Your task to perform on an android device: turn on translation in the chrome app Image 0: 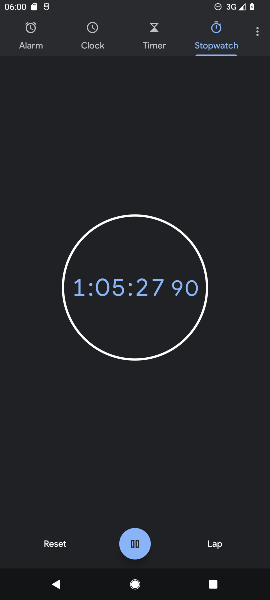
Step 0: press home button
Your task to perform on an android device: turn on translation in the chrome app Image 1: 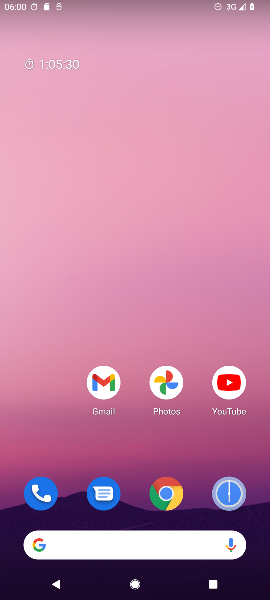
Step 1: drag from (63, 434) to (70, 120)
Your task to perform on an android device: turn on translation in the chrome app Image 2: 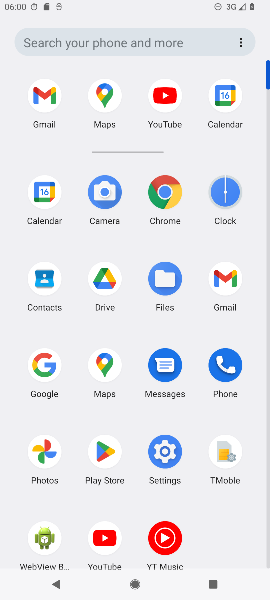
Step 2: click (171, 190)
Your task to perform on an android device: turn on translation in the chrome app Image 3: 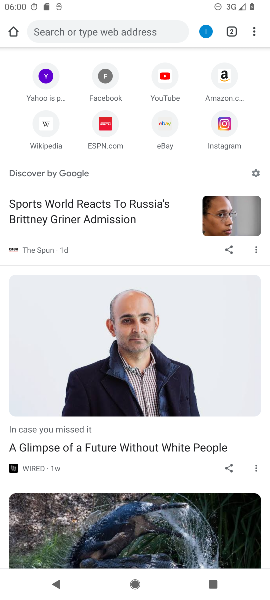
Step 3: click (254, 32)
Your task to perform on an android device: turn on translation in the chrome app Image 4: 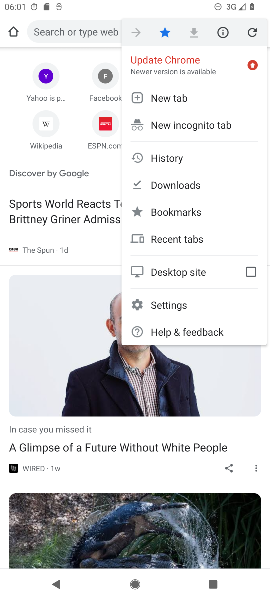
Step 4: click (178, 306)
Your task to perform on an android device: turn on translation in the chrome app Image 5: 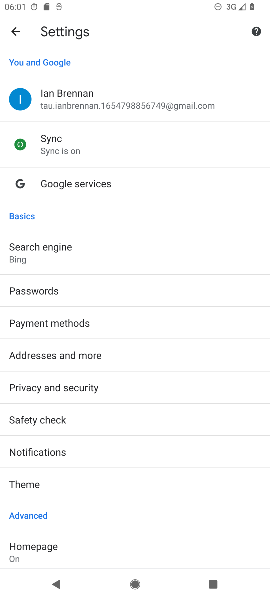
Step 5: drag from (187, 457) to (202, 383)
Your task to perform on an android device: turn on translation in the chrome app Image 6: 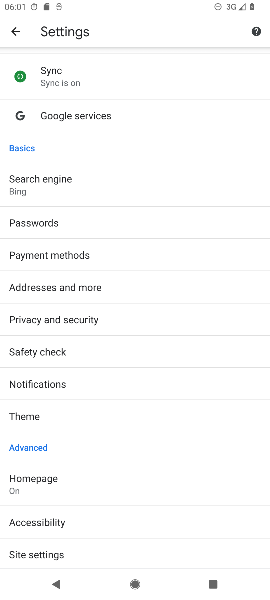
Step 6: drag from (192, 467) to (204, 389)
Your task to perform on an android device: turn on translation in the chrome app Image 7: 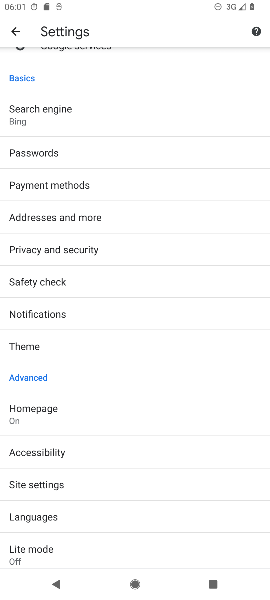
Step 7: drag from (181, 461) to (200, 360)
Your task to perform on an android device: turn on translation in the chrome app Image 8: 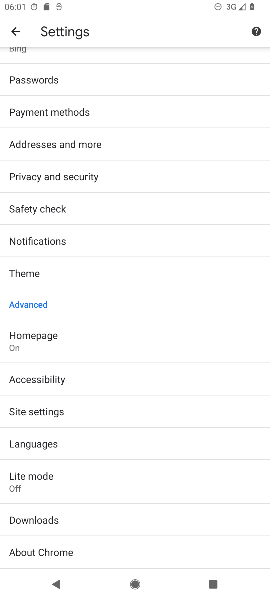
Step 8: drag from (186, 479) to (200, 341)
Your task to perform on an android device: turn on translation in the chrome app Image 9: 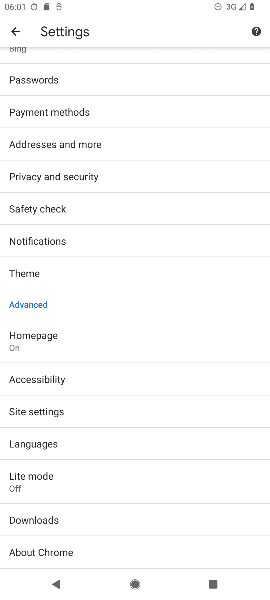
Step 9: click (181, 450)
Your task to perform on an android device: turn on translation in the chrome app Image 10: 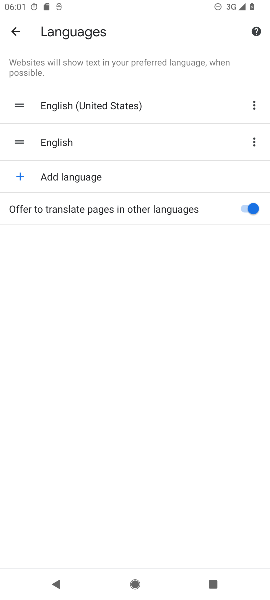
Step 10: task complete